Your task to perform on an android device: Go to ESPN.com Image 0: 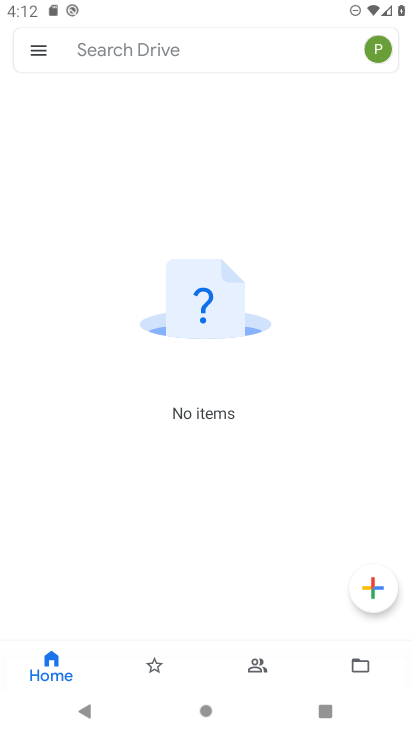
Step 0: press home button
Your task to perform on an android device: Go to ESPN.com Image 1: 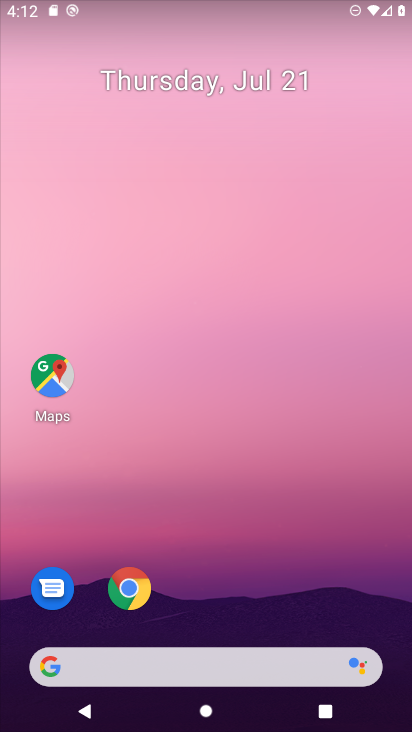
Step 1: drag from (298, 682) to (216, 138)
Your task to perform on an android device: Go to ESPN.com Image 2: 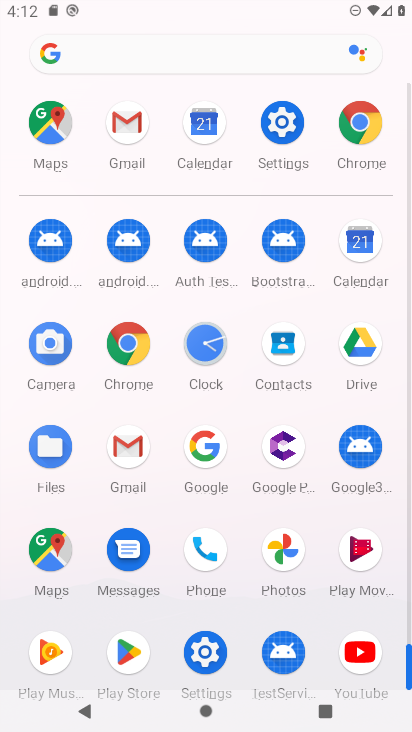
Step 2: click (358, 148)
Your task to perform on an android device: Go to ESPN.com Image 3: 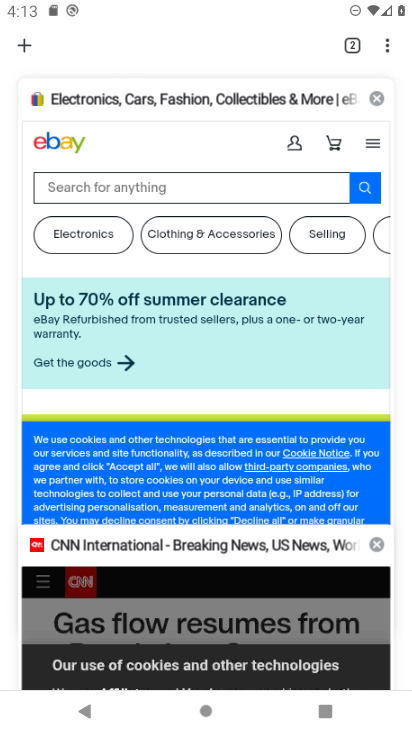
Step 3: click (26, 54)
Your task to perform on an android device: Go to ESPN.com Image 4: 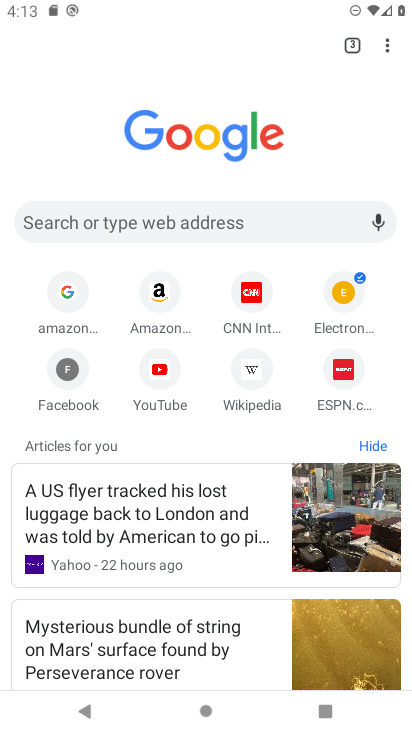
Step 4: click (342, 375)
Your task to perform on an android device: Go to ESPN.com Image 5: 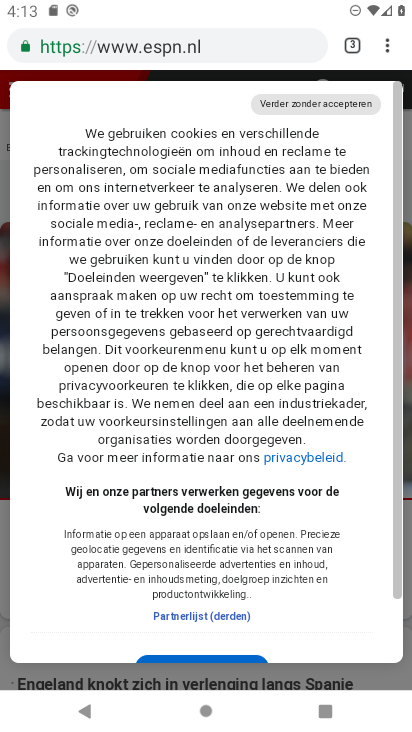
Step 5: task complete